Your task to perform on an android device: Open eBay Image 0: 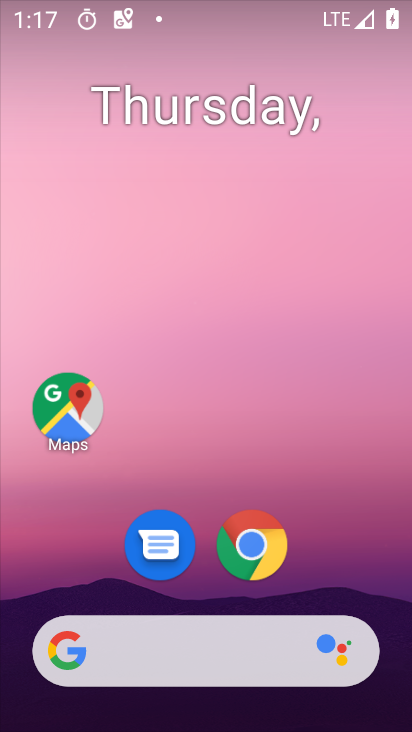
Step 0: drag from (296, 620) to (349, 38)
Your task to perform on an android device: Open eBay Image 1: 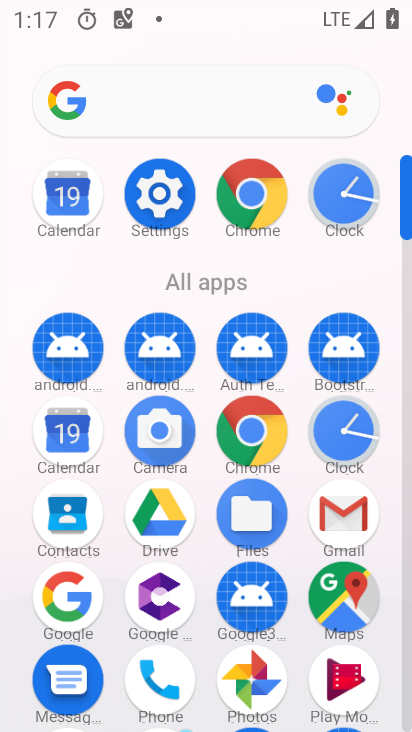
Step 1: click (243, 433)
Your task to perform on an android device: Open eBay Image 2: 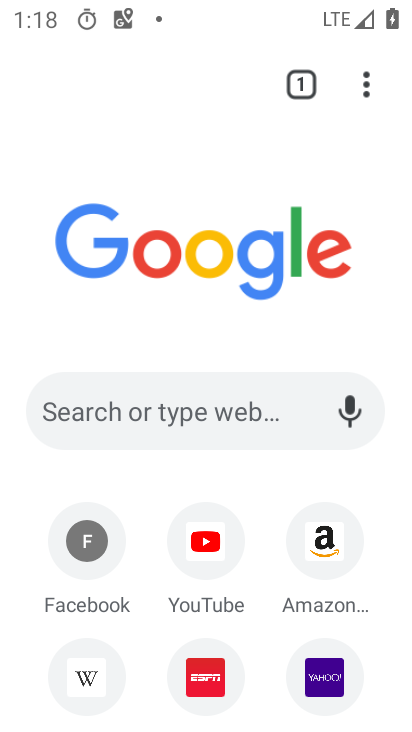
Step 2: click (217, 421)
Your task to perform on an android device: Open eBay Image 3: 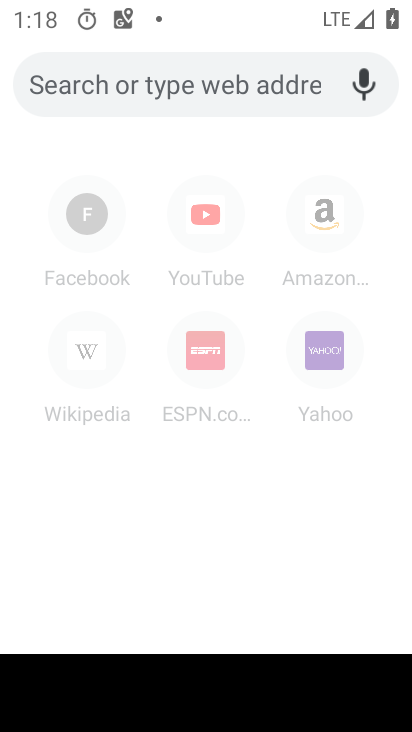
Step 3: type "ebay"
Your task to perform on an android device: Open eBay Image 4: 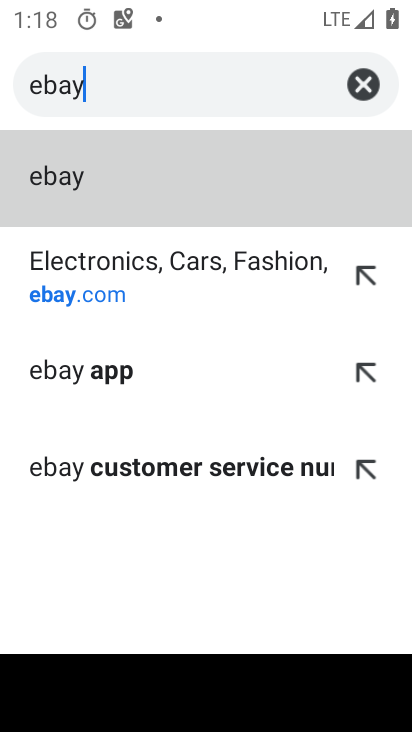
Step 4: click (119, 279)
Your task to perform on an android device: Open eBay Image 5: 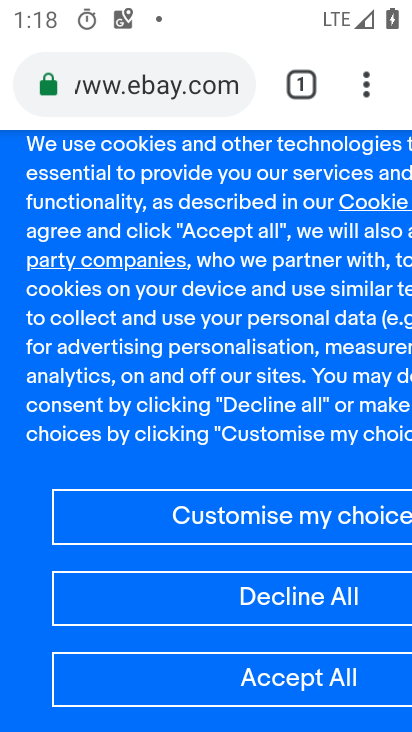
Step 5: task complete